Your task to perform on an android device: Open Youtube and go to the subscriptions tab Image 0: 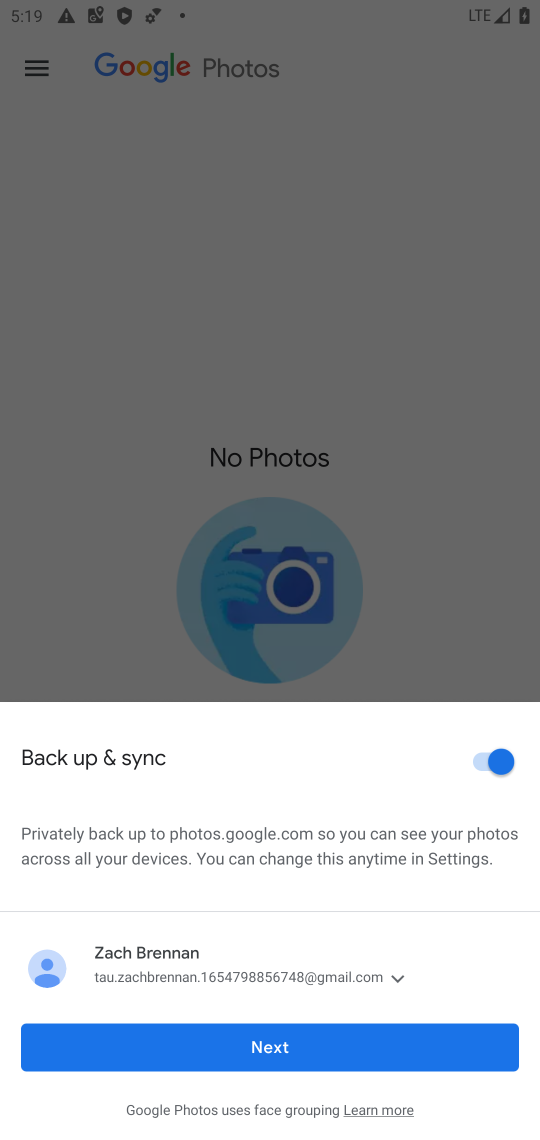
Step 0: press home button
Your task to perform on an android device: Open Youtube and go to the subscriptions tab Image 1: 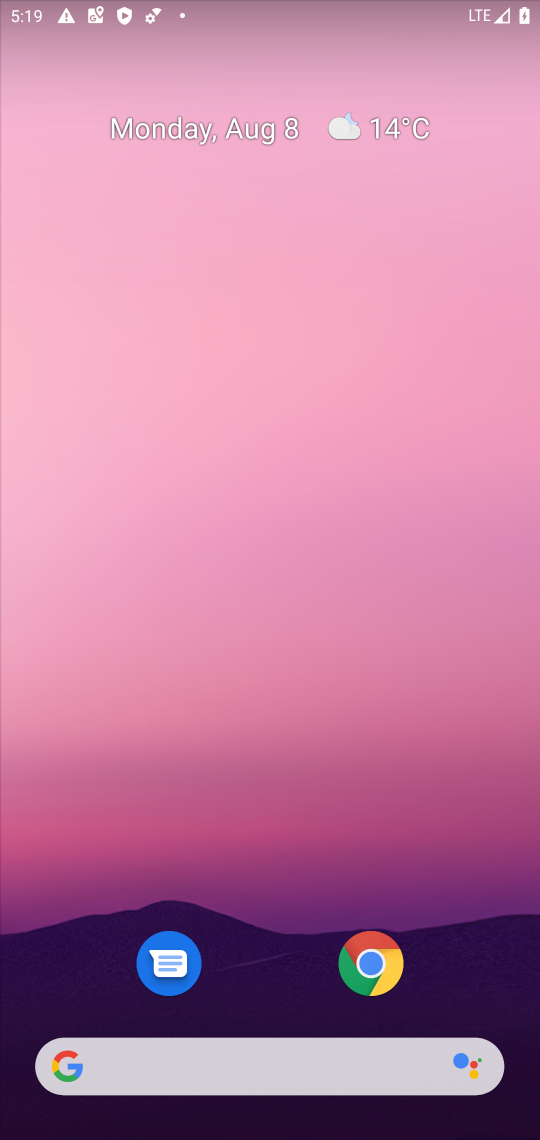
Step 1: drag from (247, 907) to (177, 217)
Your task to perform on an android device: Open Youtube and go to the subscriptions tab Image 2: 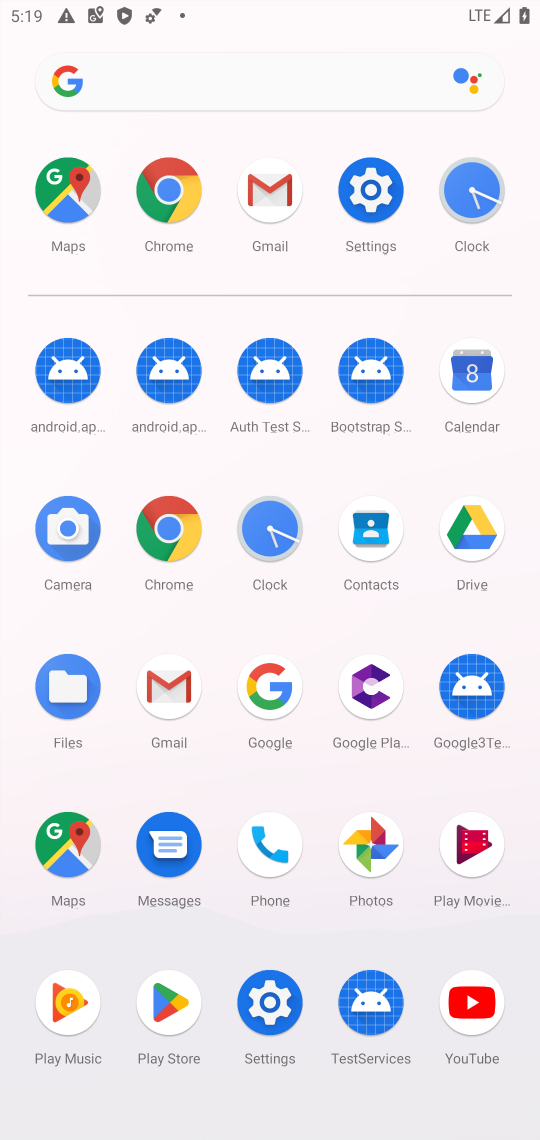
Step 2: click (487, 991)
Your task to perform on an android device: Open Youtube and go to the subscriptions tab Image 3: 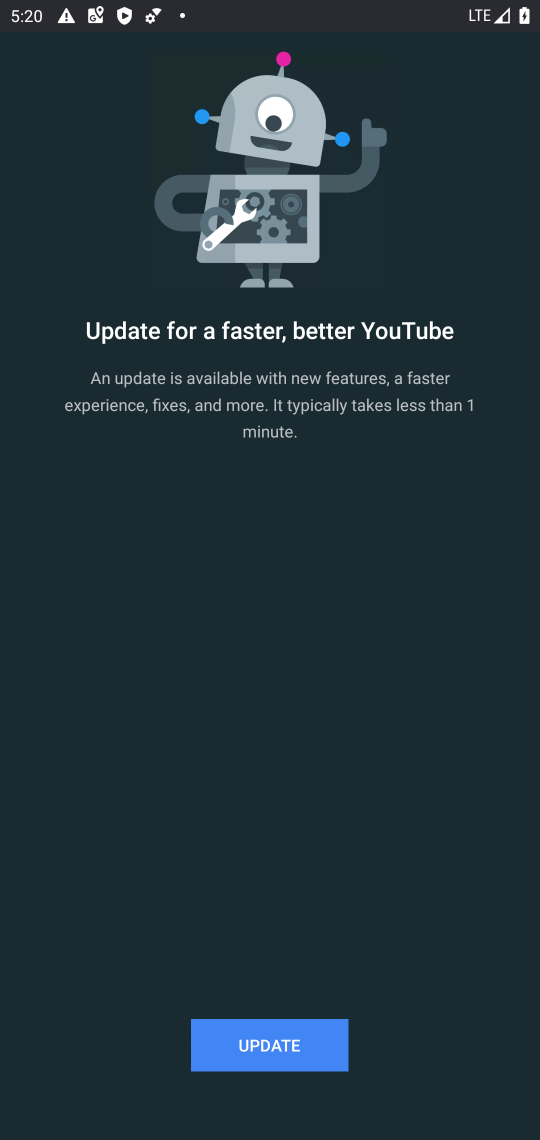
Step 3: click (280, 1029)
Your task to perform on an android device: Open Youtube and go to the subscriptions tab Image 4: 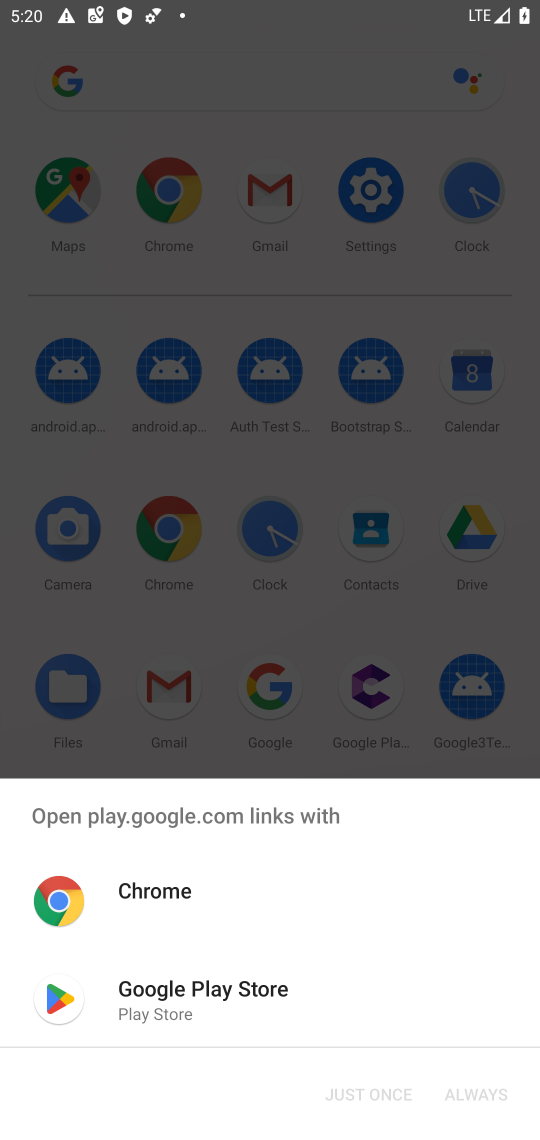
Step 4: click (278, 982)
Your task to perform on an android device: Open Youtube and go to the subscriptions tab Image 5: 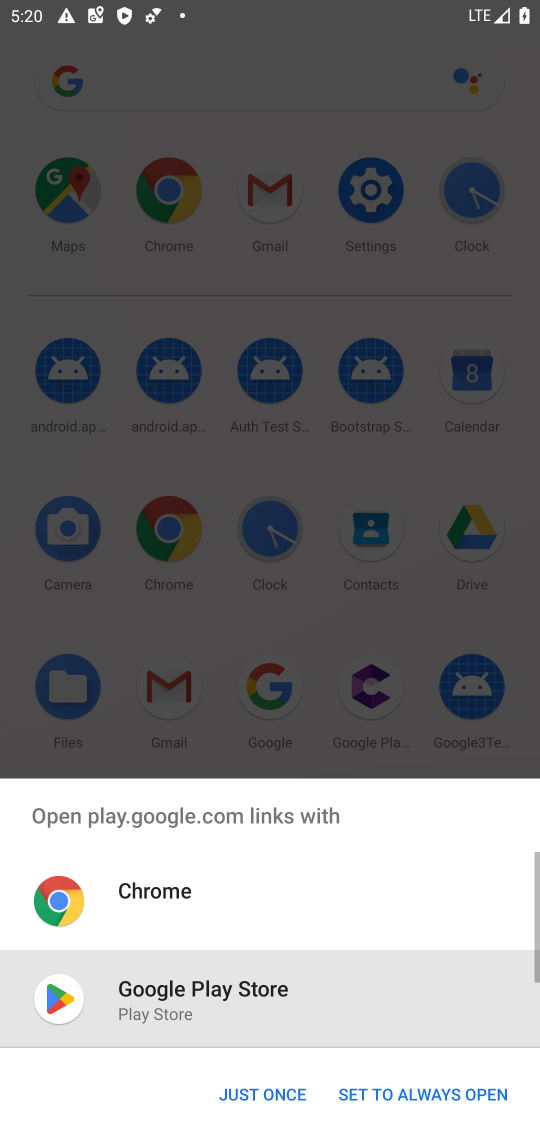
Step 5: click (227, 1080)
Your task to perform on an android device: Open Youtube and go to the subscriptions tab Image 6: 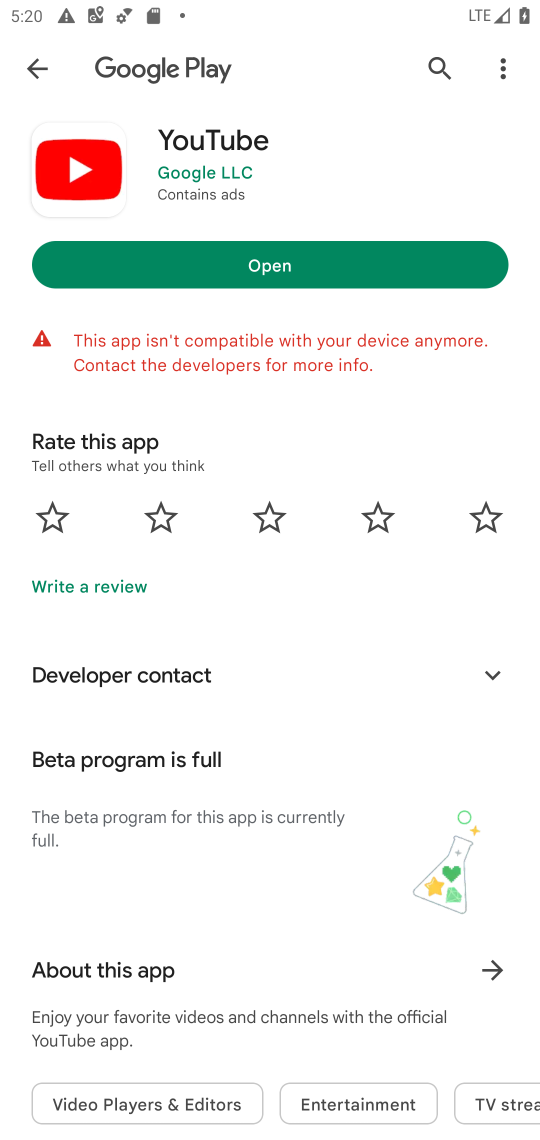
Step 6: task complete